Your task to perform on an android device: toggle sleep mode Image 0: 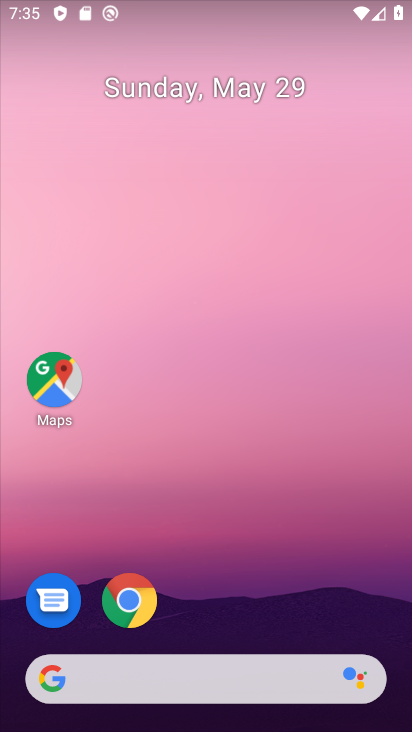
Step 0: drag from (199, 633) to (282, 103)
Your task to perform on an android device: toggle sleep mode Image 1: 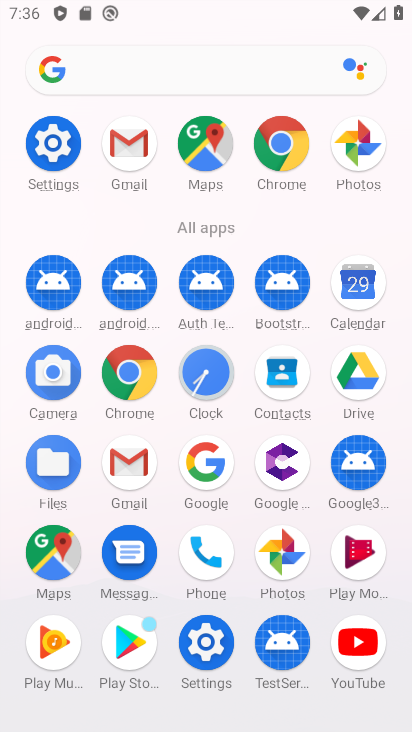
Step 1: click (63, 148)
Your task to perform on an android device: toggle sleep mode Image 2: 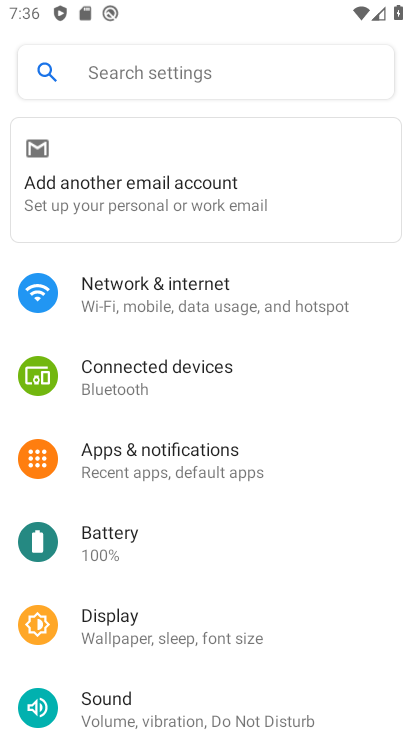
Step 2: click (202, 64)
Your task to perform on an android device: toggle sleep mode Image 3: 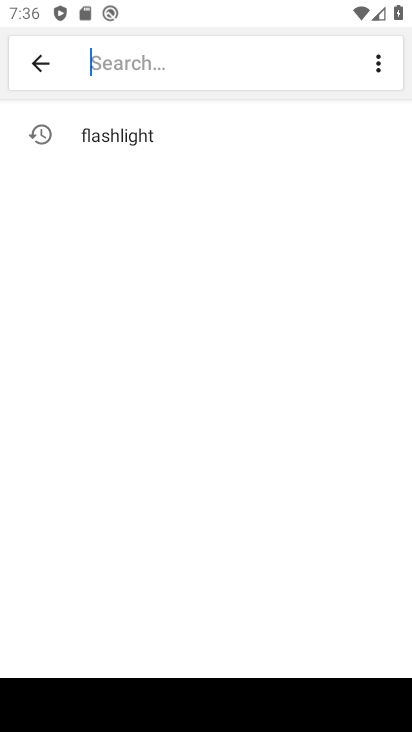
Step 3: type "sleep mode"
Your task to perform on an android device: toggle sleep mode Image 4: 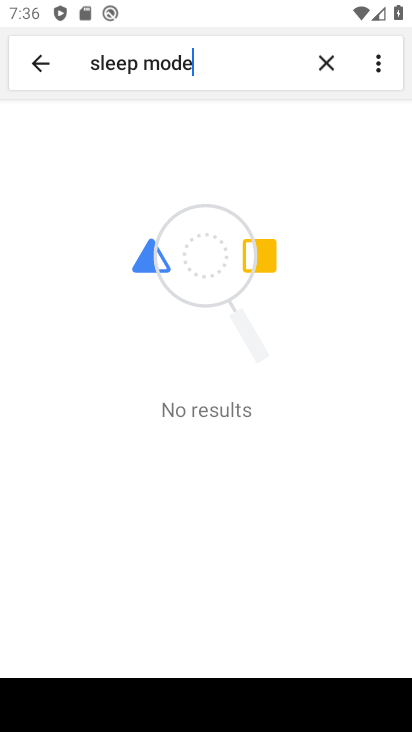
Step 4: task complete